Your task to perform on an android device: Open settings on Google Maps Image 0: 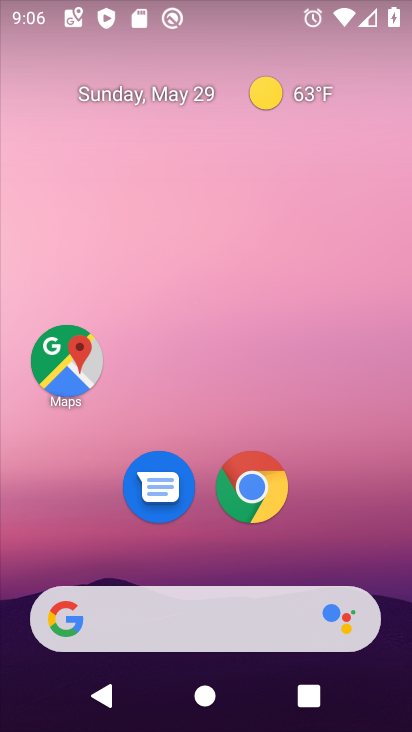
Step 0: drag from (181, 656) to (191, 97)
Your task to perform on an android device: Open settings on Google Maps Image 1: 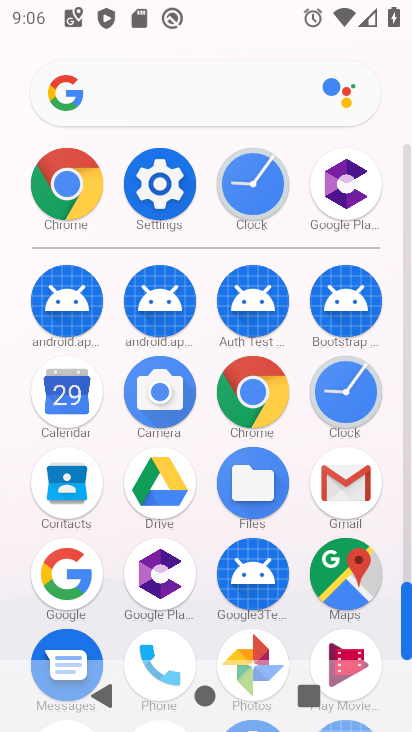
Step 1: drag from (260, 479) to (246, 134)
Your task to perform on an android device: Open settings on Google Maps Image 2: 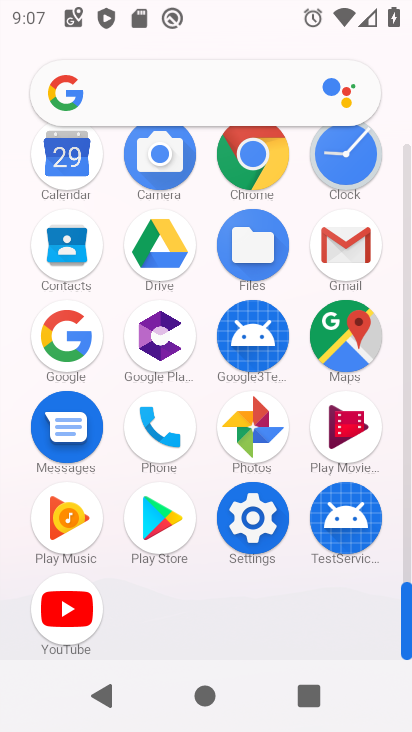
Step 2: click (375, 356)
Your task to perform on an android device: Open settings on Google Maps Image 3: 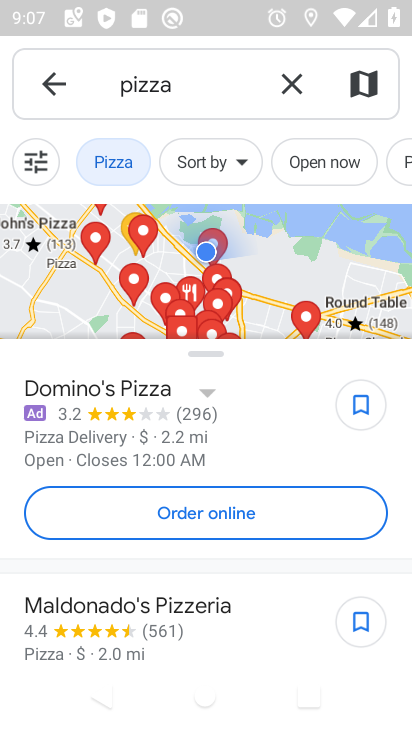
Step 3: click (48, 85)
Your task to perform on an android device: Open settings on Google Maps Image 4: 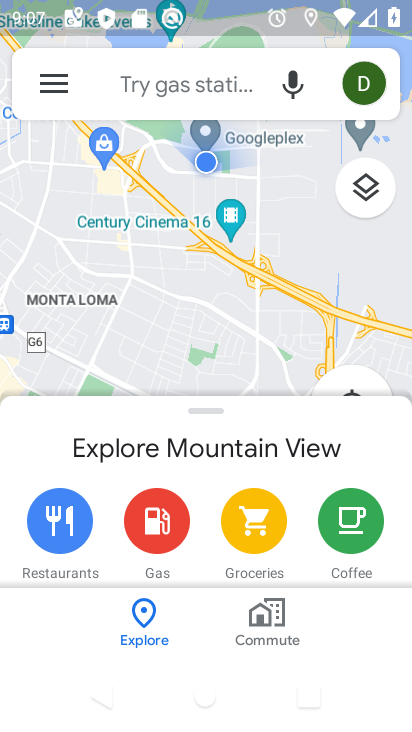
Step 4: click (54, 80)
Your task to perform on an android device: Open settings on Google Maps Image 5: 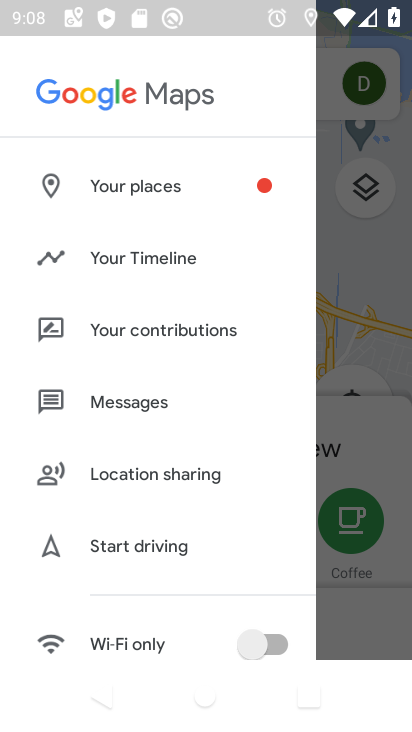
Step 5: drag from (179, 533) to (254, 5)
Your task to perform on an android device: Open settings on Google Maps Image 6: 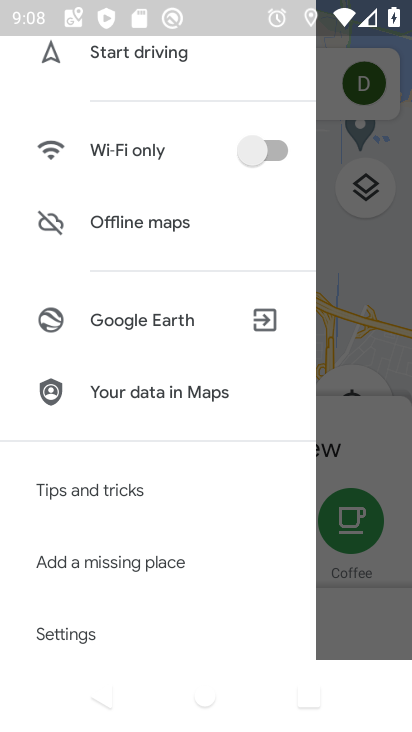
Step 6: drag from (125, 566) to (212, 41)
Your task to perform on an android device: Open settings on Google Maps Image 7: 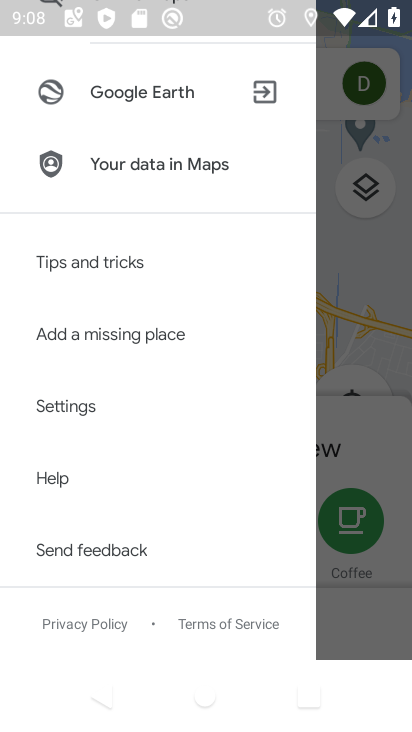
Step 7: click (106, 408)
Your task to perform on an android device: Open settings on Google Maps Image 8: 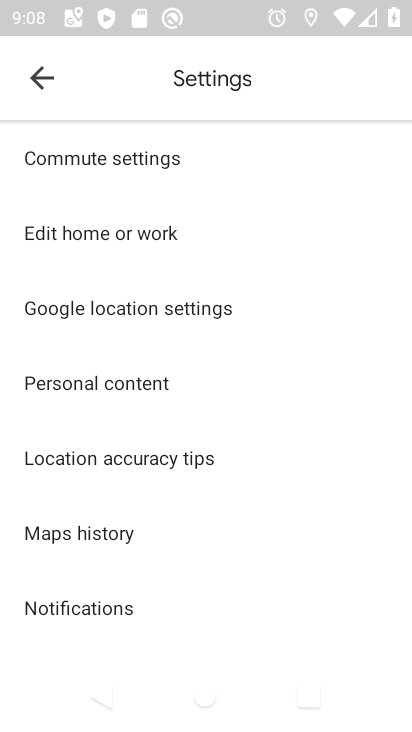
Step 8: task complete